Your task to perform on an android device: open a bookmark in the chrome app Image 0: 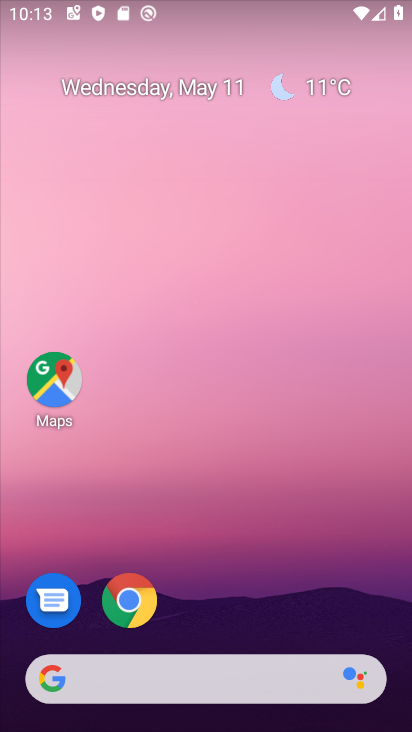
Step 0: click (121, 613)
Your task to perform on an android device: open a bookmark in the chrome app Image 1: 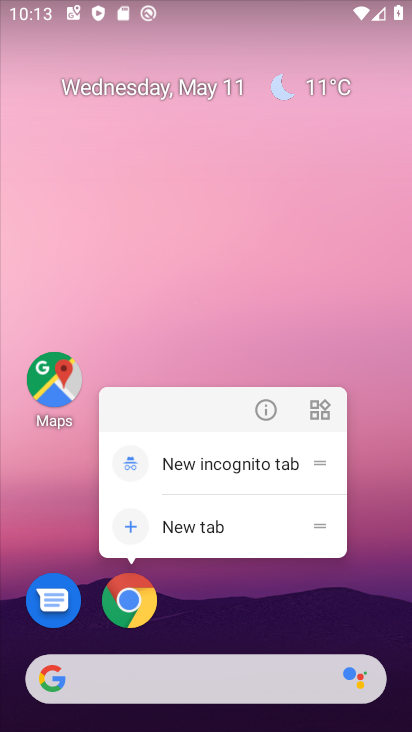
Step 1: click (121, 613)
Your task to perform on an android device: open a bookmark in the chrome app Image 2: 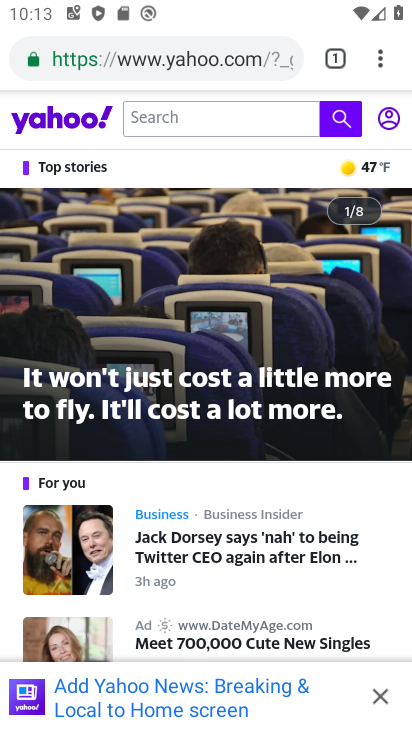
Step 2: click (366, 49)
Your task to perform on an android device: open a bookmark in the chrome app Image 3: 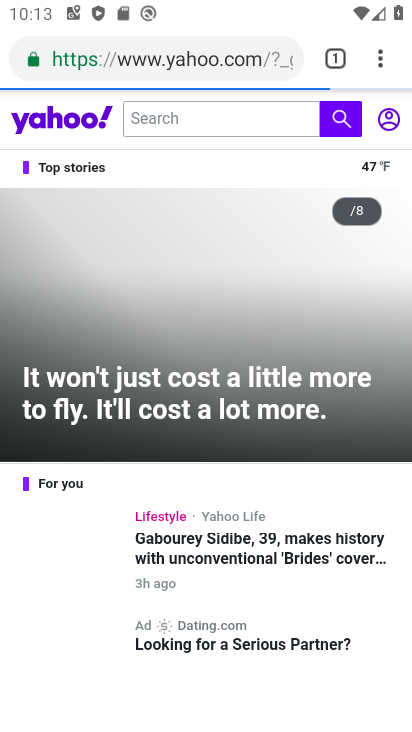
Step 3: click (386, 63)
Your task to perform on an android device: open a bookmark in the chrome app Image 4: 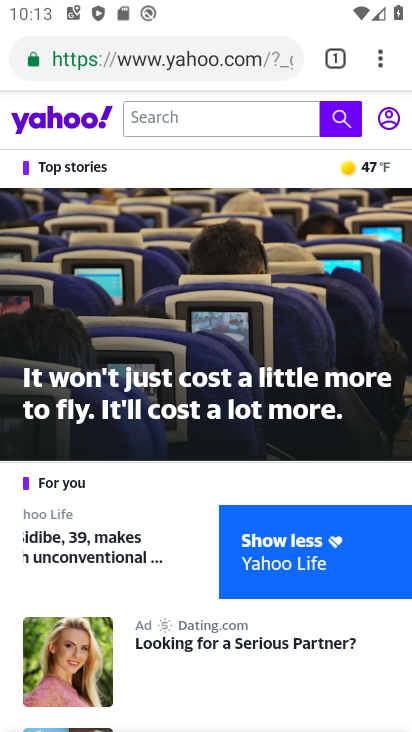
Step 4: click (376, 54)
Your task to perform on an android device: open a bookmark in the chrome app Image 5: 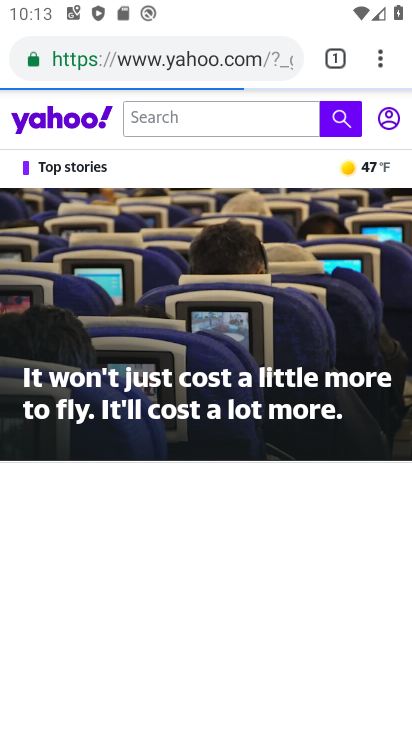
Step 5: click (376, 54)
Your task to perform on an android device: open a bookmark in the chrome app Image 6: 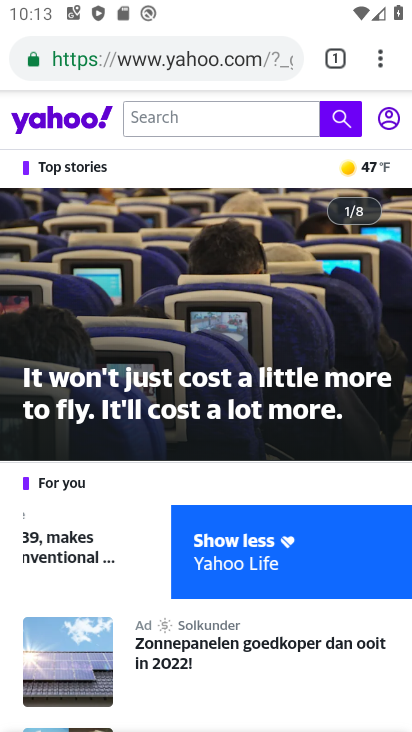
Step 6: click (377, 54)
Your task to perform on an android device: open a bookmark in the chrome app Image 7: 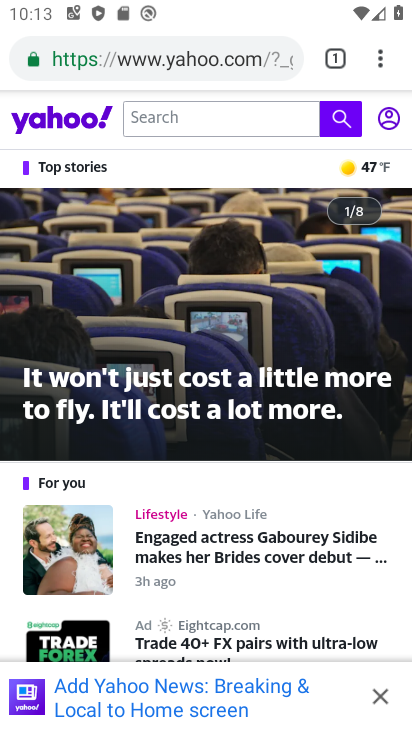
Step 7: click (393, 69)
Your task to perform on an android device: open a bookmark in the chrome app Image 8: 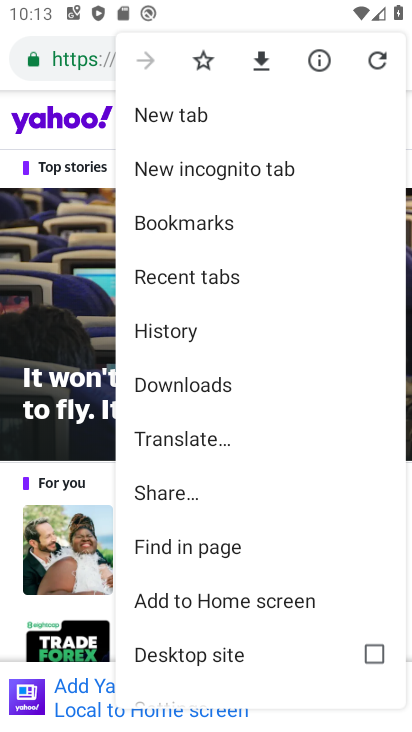
Step 8: click (171, 225)
Your task to perform on an android device: open a bookmark in the chrome app Image 9: 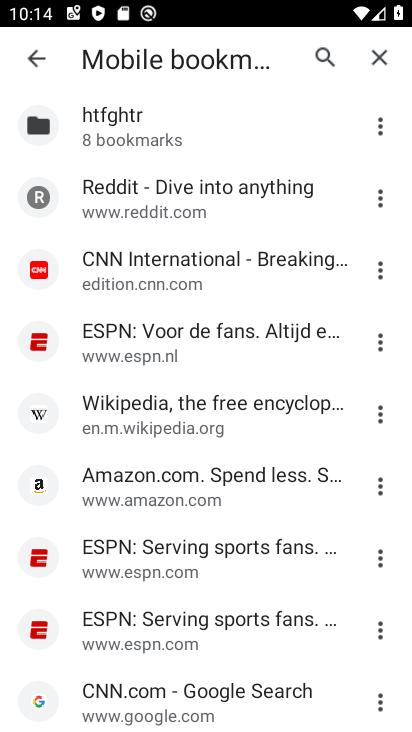
Step 9: press home button
Your task to perform on an android device: open a bookmark in the chrome app Image 10: 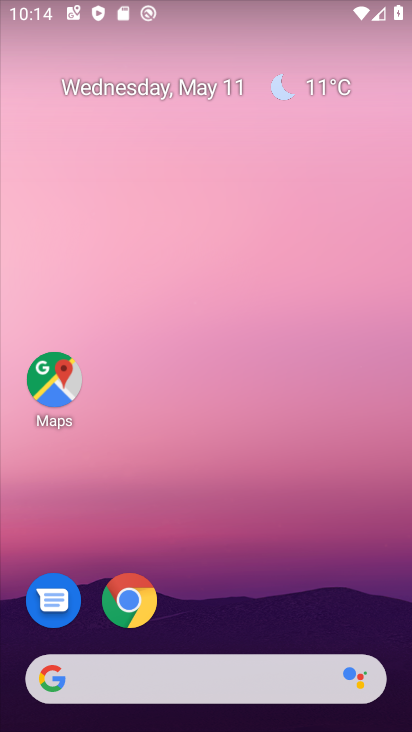
Step 10: click (153, 602)
Your task to perform on an android device: open a bookmark in the chrome app Image 11: 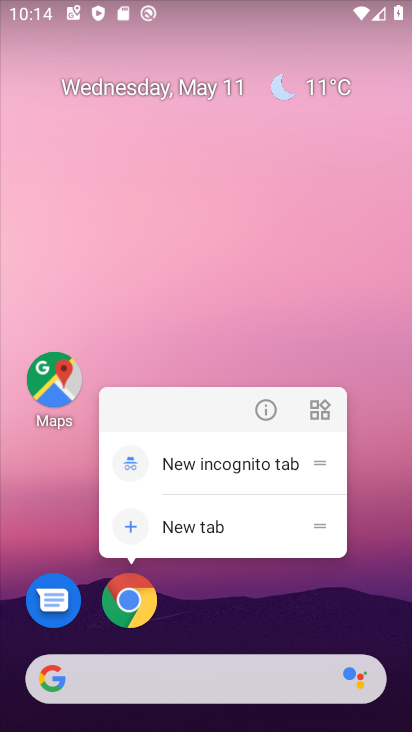
Step 11: click (153, 602)
Your task to perform on an android device: open a bookmark in the chrome app Image 12: 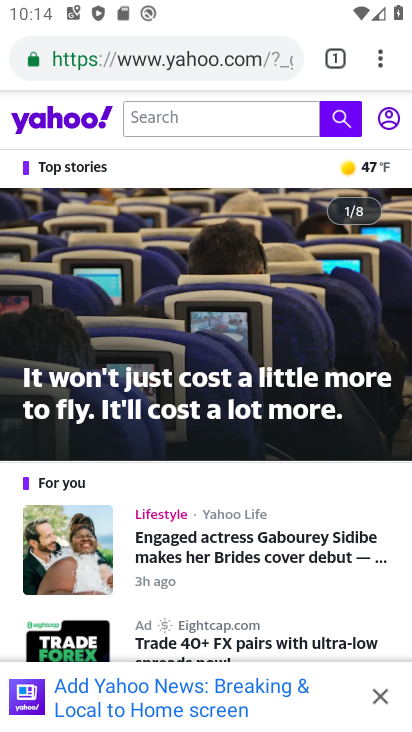
Step 12: click (379, 50)
Your task to perform on an android device: open a bookmark in the chrome app Image 13: 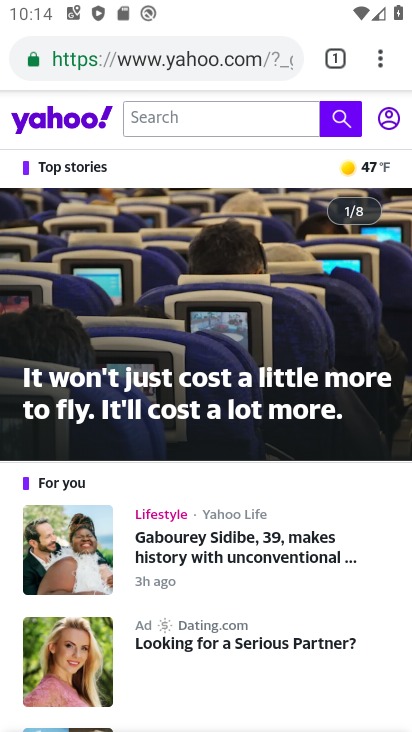
Step 13: click (375, 59)
Your task to perform on an android device: open a bookmark in the chrome app Image 14: 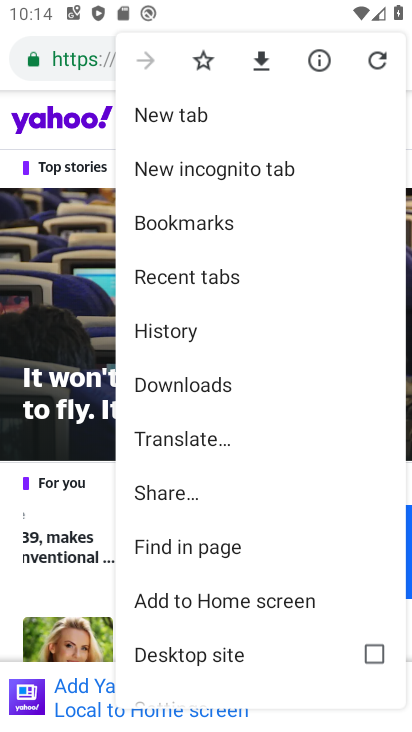
Step 14: click (288, 232)
Your task to perform on an android device: open a bookmark in the chrome app Image 15: 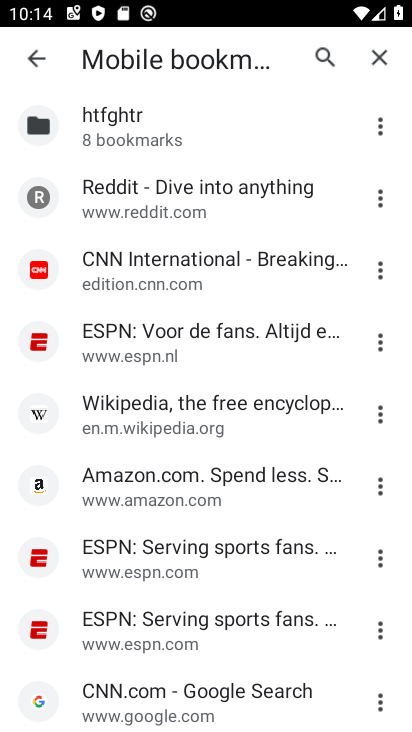
Step 15: task complete